Your task to perform on an android device: Look up the best selling books on Goodreads. Image 0: 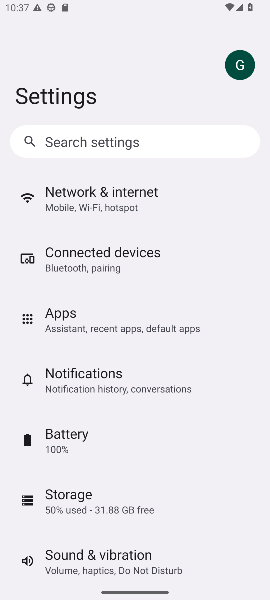
Step 0: press home button
Your task to perform on an android device: Look up the best selling books on Goodreads. Image 1: 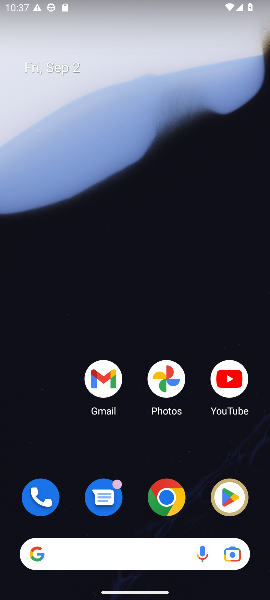
Step 1: click (168, 512)
Your task to perform on an android device: Look up the best selling books on Goodreads. Image 2: 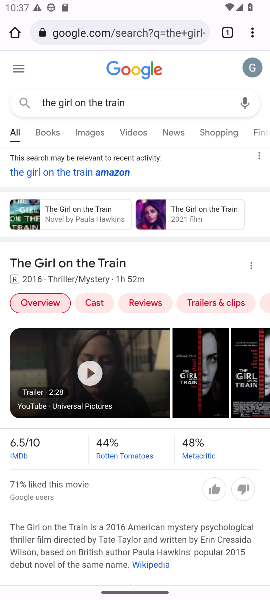
Step 2: click (144, 36)
Your task to perform on an android device: Look up the best selling books on Goodreads. Image 3: 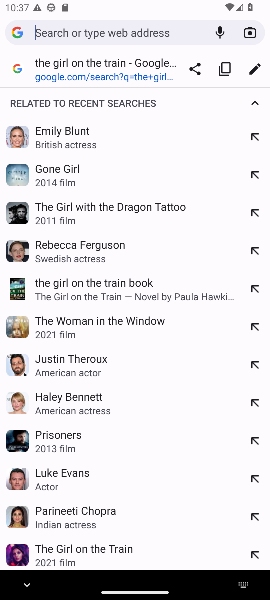
Step 3: type "best selling books on Goodreads"
Your task to perform on an android device: Look up the best selling books on Goodreads. Image 4: 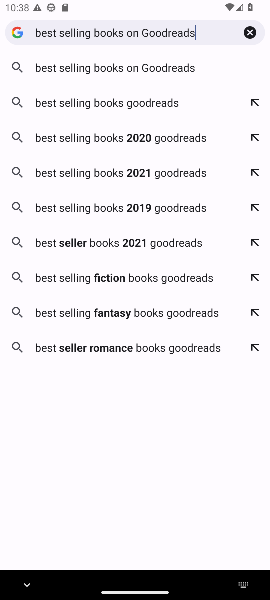
Step 4: click (140, 76)
Your task to perform on an android device: Look up the best selling books on Goodreads. Image 5: 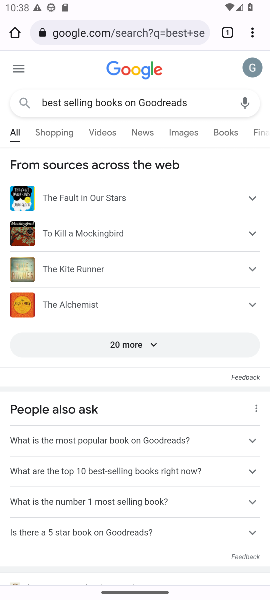
Step 5: drag from (153, 458) to (179, 122)
Your task to perform on an android device: Look up the best selling books on Goodreads. Image 6: 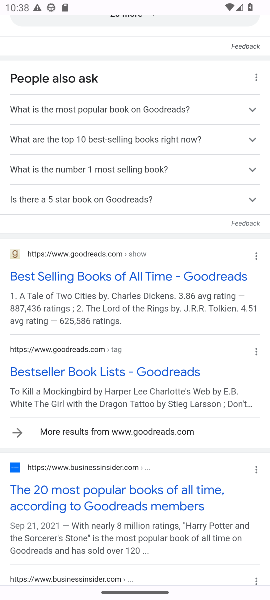
Step 6: click (176, 271)
Your task to perform on an android device: Look up the best selling books on Goodreads. Image 7: 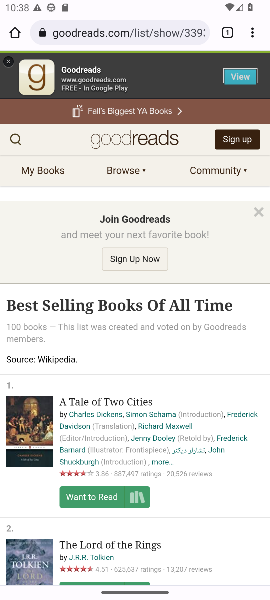
Step 7: task complete